Your task to perform on an android device: Is it going to rain today? Image 0: 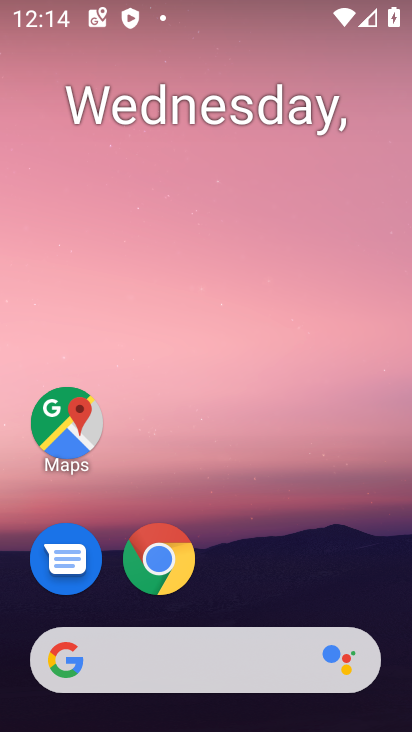
Step 0: click (178, 660)
Your task to perform on an android device: Is it going to rain today? Image 1: 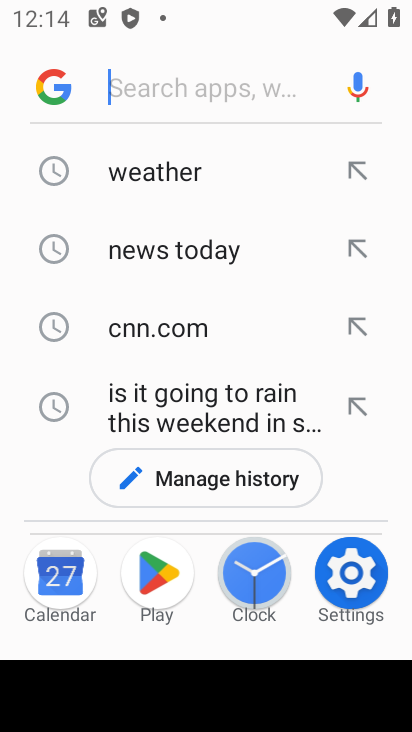
Step 1: click (162, 169)
Your task to perform on an android device: Is it going to rain today? Image 2: 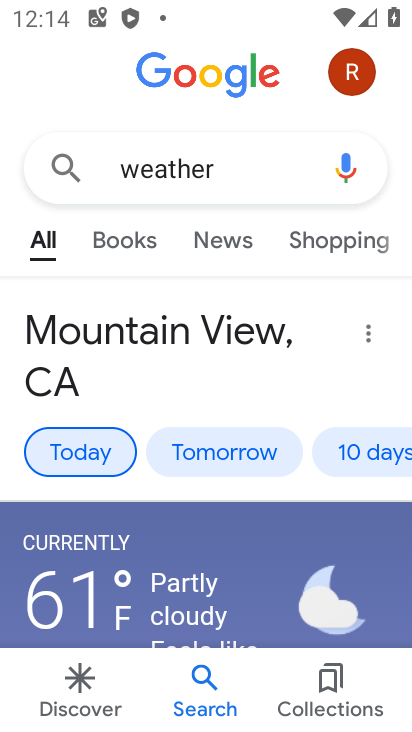
Step 2: task complete